Your task to perform on an android device: delete a single message in the gmail app Image 0: 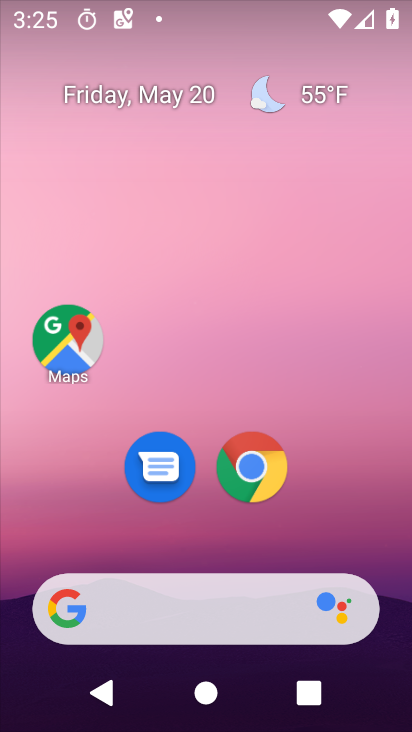
Step 0: drag from (225, 551) to (203, 49)
Your task to perform on an android device: delete a single message in the gmail app Image 1: 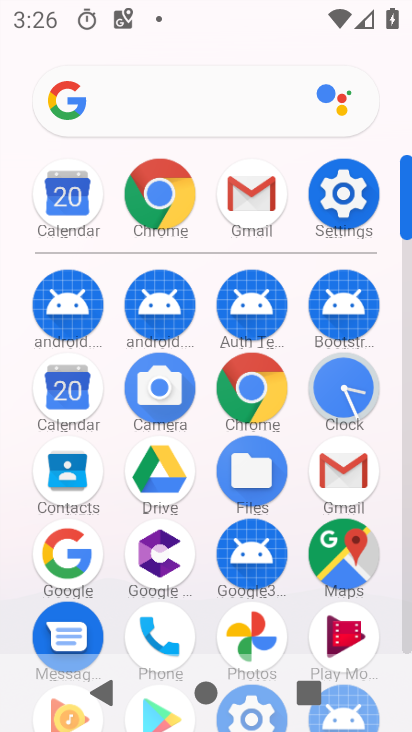
Step 1: click (257, 200)
Your task to perform on an android device: delete a single message in the gmail app Image 2: 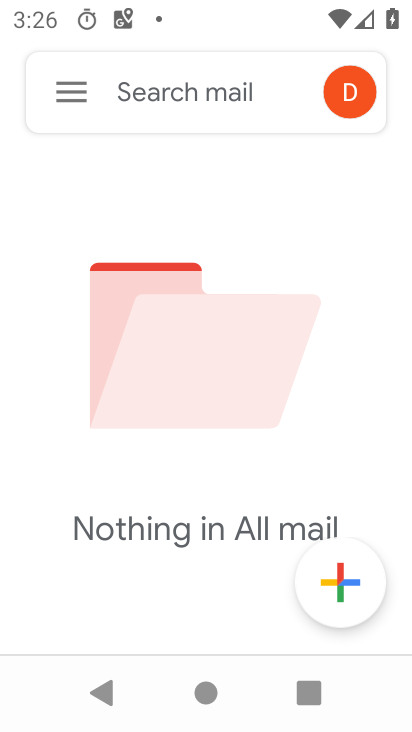
Step 2: click (67, 92)
Your task to perform on an android device: delete a single message in the gmail app Image 3: 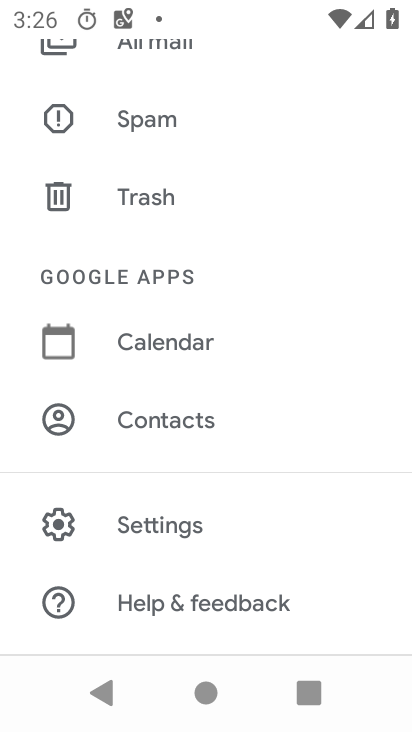
Step 3: click (145, 51)
Your task to perform on an android device: delete a single message in the gmail app Image 4: 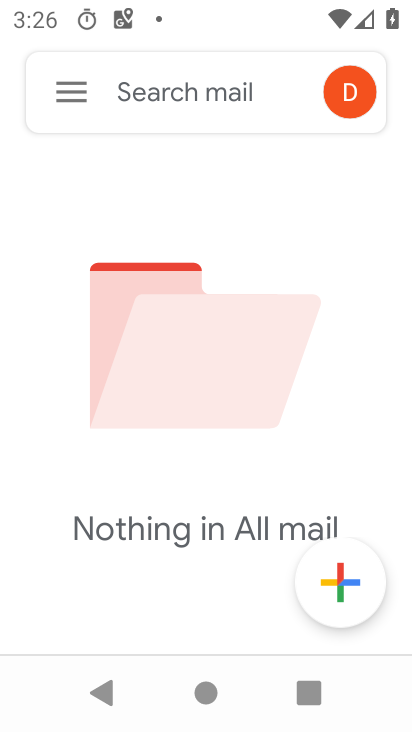
Step 4: task complete